Your task to perform on an android device: Open Chrome and go to the settings page Image 0: 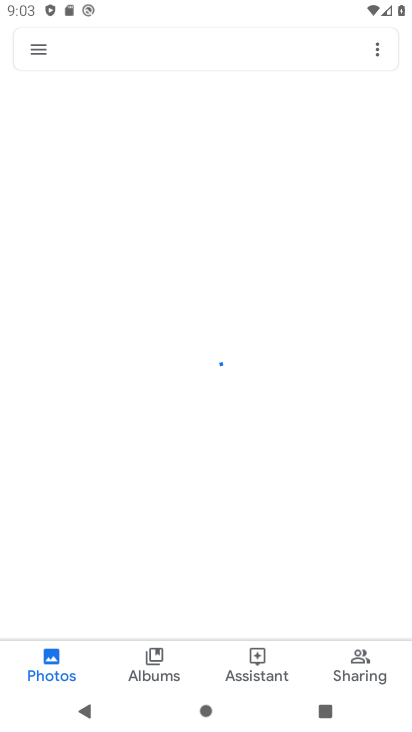
Step 0: press home button
Your task to perform on an android device: Open Chrome and go to the settings page Image 1: 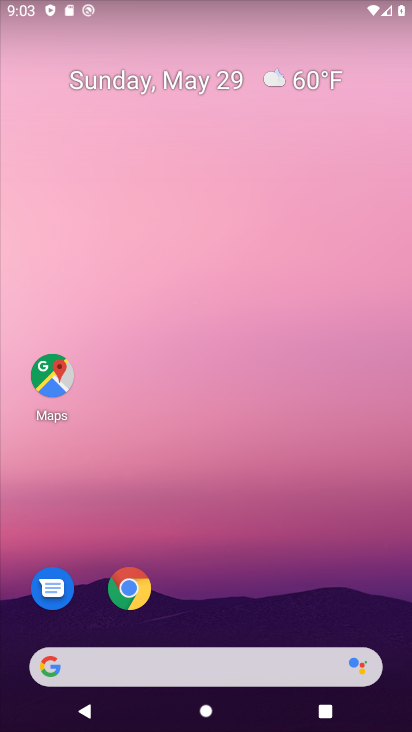
Step 1: click (132, 588)
Your task to perform on an android device: Open Chrome and go to the settings page Image 2: 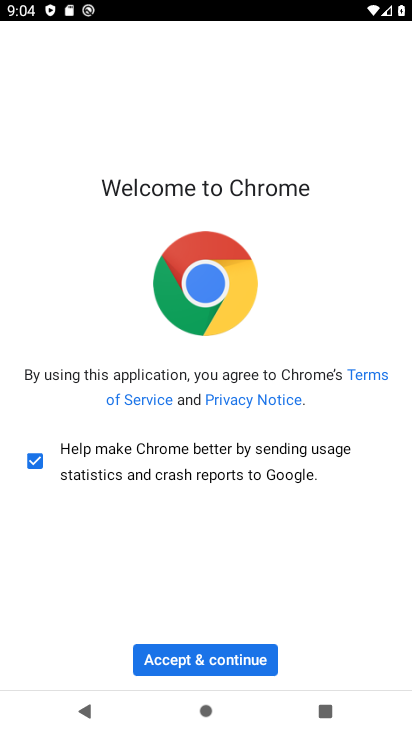
Step 2: click (186, 662)
Your task to perform on an android device: Open Chrome and go to the settings page Image 3: 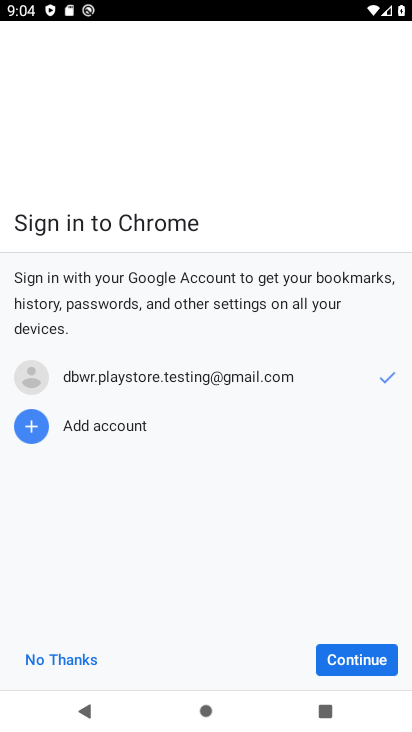
Step 3: click (342, 659)
Your task to perform on an android device: Open Chrome and go to the settings page Image 4: 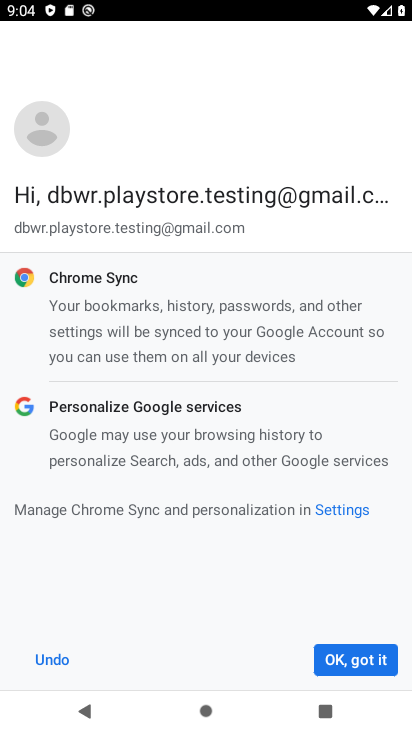
Step 4: click (342, 659)
Your task to perform on an android device: Open Chrome and go to the settings page Image 5: 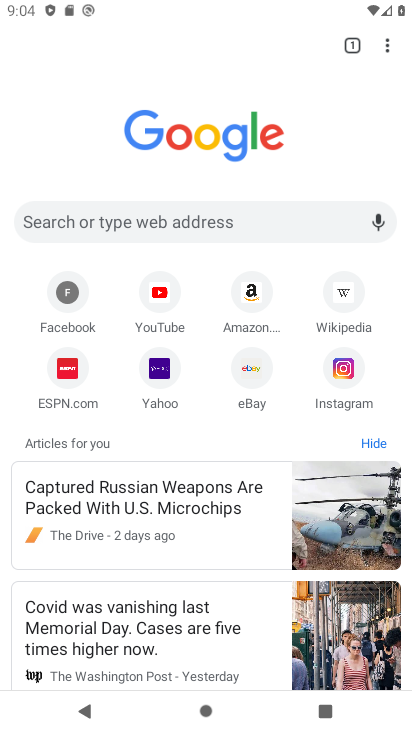
Step 5: click (386, 42)
Your task to perform on an android device: Open Chrome and go to the settings page Image 6: 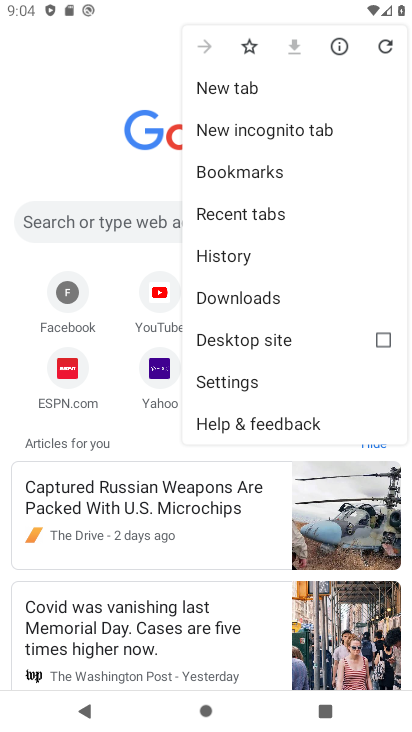
Step 6: click (231, 382)
Your task to perform on an android device: Open Chrome and go to the settings page Image 7: 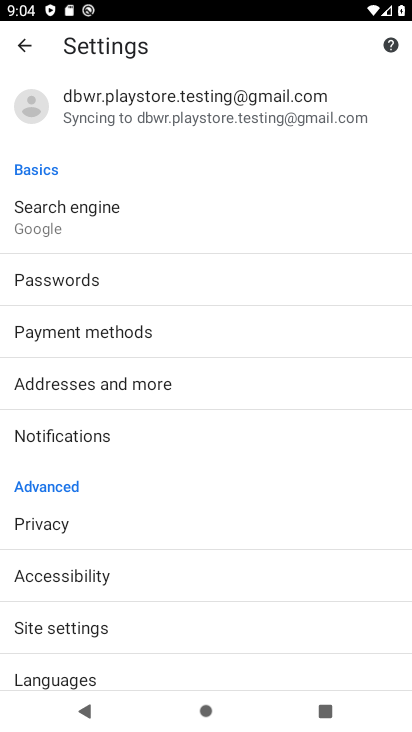
Step 7: task complete